Your task to perform on an android device: Do I have any events this weekend? Image 0: 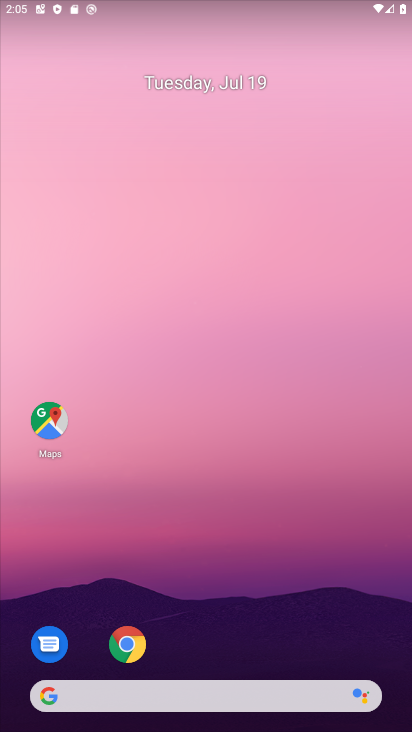
Step 0: drag from (203, 548) to (203, 189)
Your task to perform on an android device: Do I have any events this weekend? Image 1: 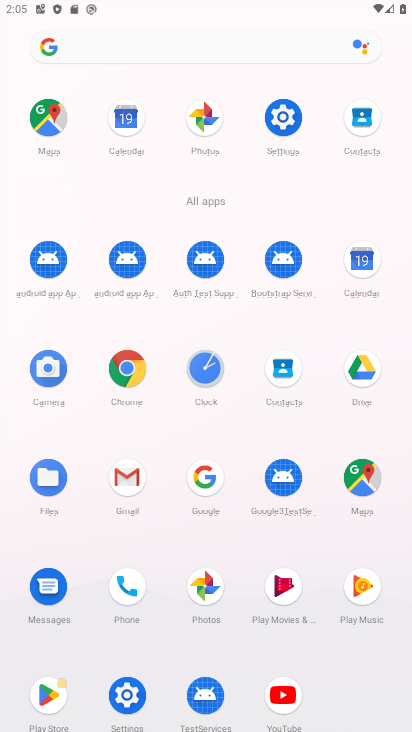
Step 1: click (359, 271)
Your task to perform on an android device: Do I have any events this weekend? Image 2: 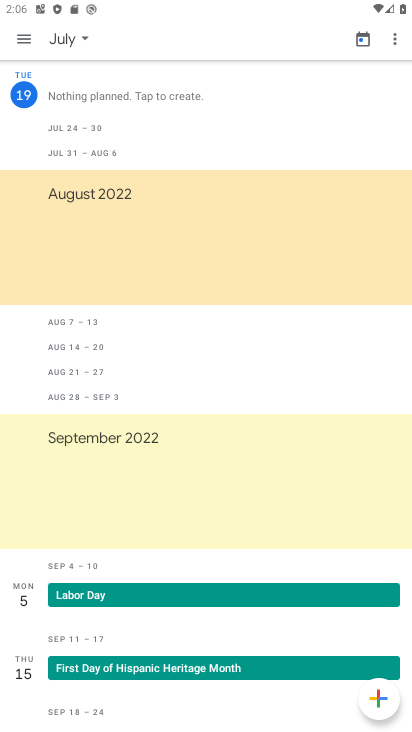
Step 2: click (80, 37)
Your task to perform on an android device: Do I have any events this weekend? Image 3: 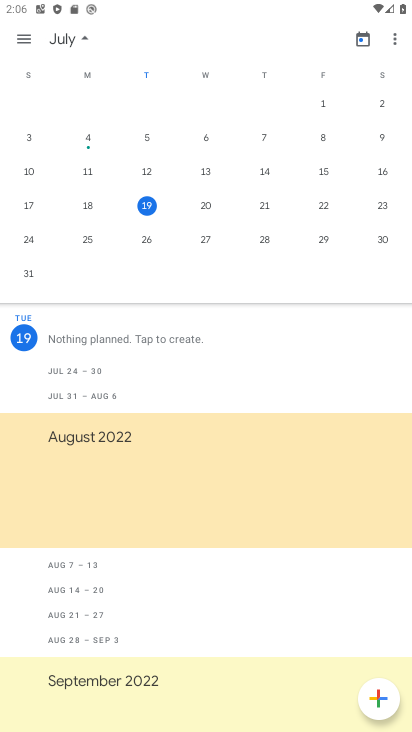
Step 3: click (22, 41)
Your task to perform on an android device: Do I have any events this weekend? Image 4: 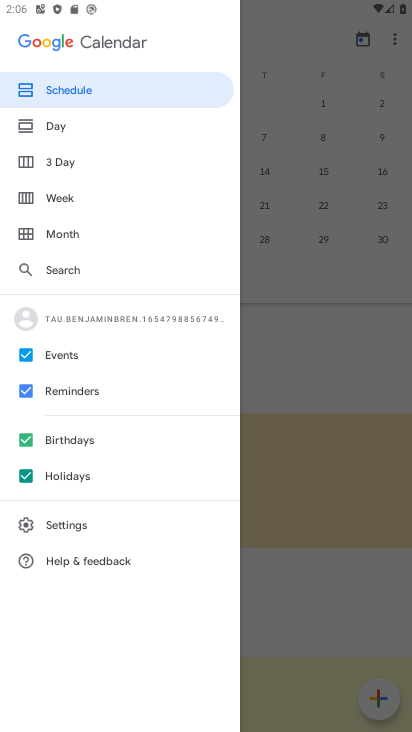
Step 4: click (61, 193)
Your task to perform on an android device: Do I have any events this weekend? Image 5: 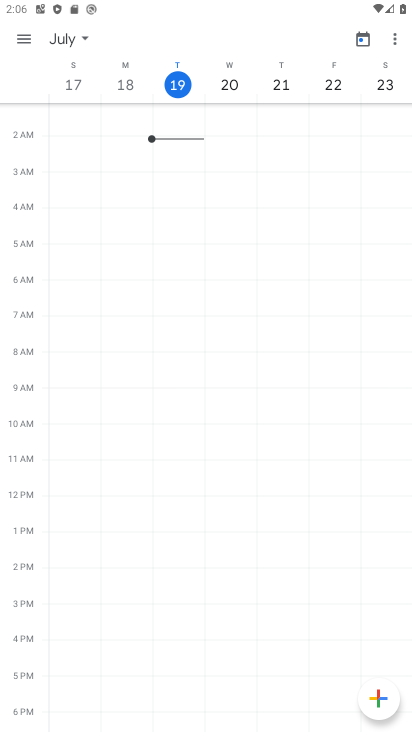
Step 5: click (72, 39)
Your task to perform on an android device: Do I have any events this weekend? Image 6: 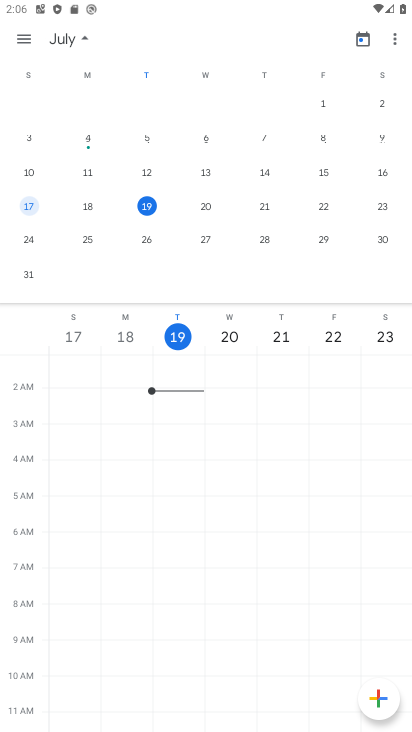
Step 6: click (29, 201)
Your task to perform on an android device: Do I have any events this weekend? Image 7: 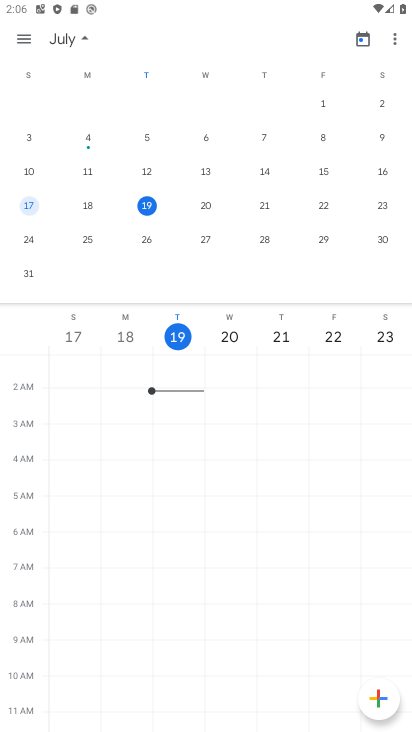
Step 7: task complete